Your task to perform on an android device: toggle notifications settings in the gmail app Image 0: 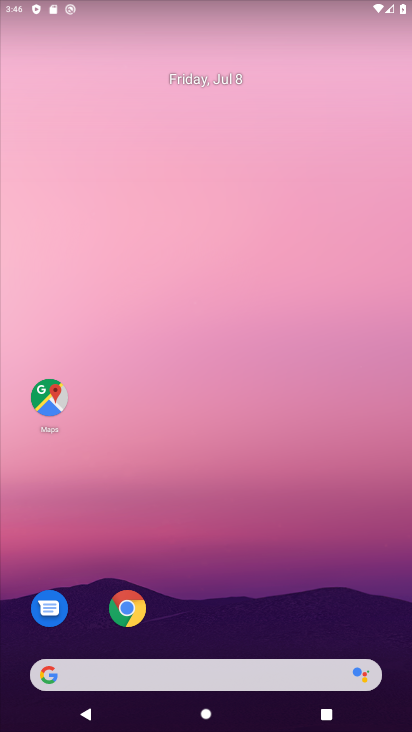
Step 0: drag from (201, 605) to (183, 42)
Your task to perform on an android device: toggle notifications settings in the gmail app Image 1: 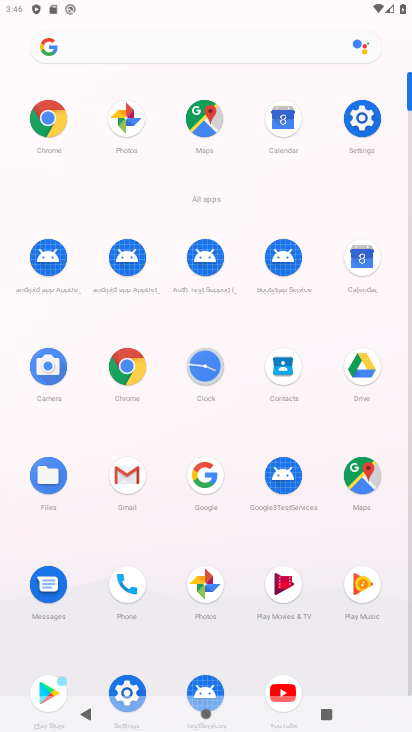
Step 1: click (127, 467)
Your task to perform on an android device: toggle notifications settings in the gmail app Image 2: 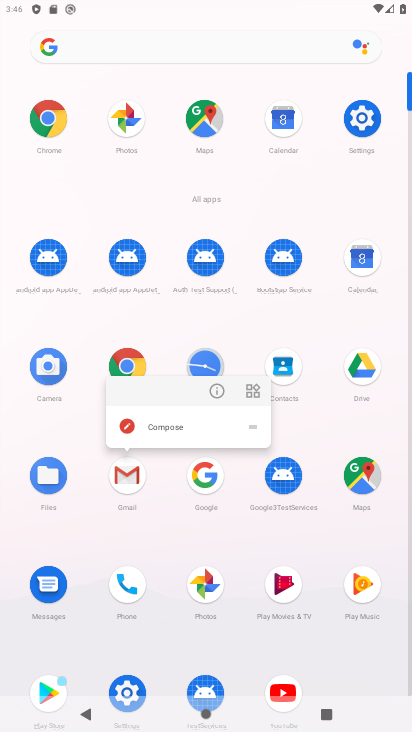
Step 2: click (209, 386)
Your task to perform on an android device: toggle notifications settings in the gmail app Image 3: 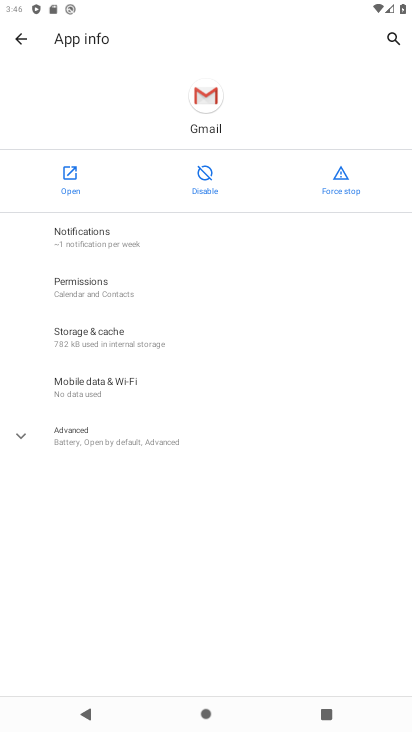
Step 3: click (101, 238)
Your task to perform on an android device: toggle notifications settings in the gmail app Image 4: 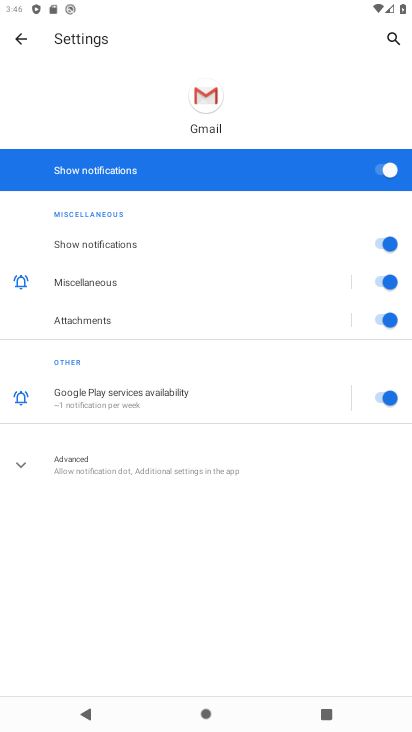
Step 4: click (385, 158)
Your task to perform on an android device: toggle notifications settings in the gmail app Image 5: 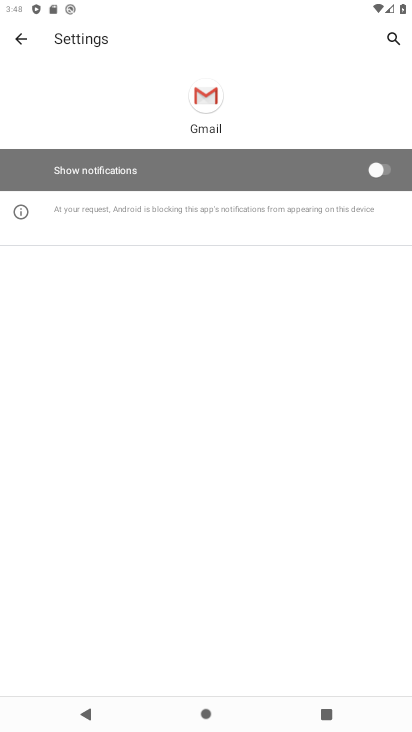
Step 5: task complete